Your task to perform on an android device: turn off location Image 0: 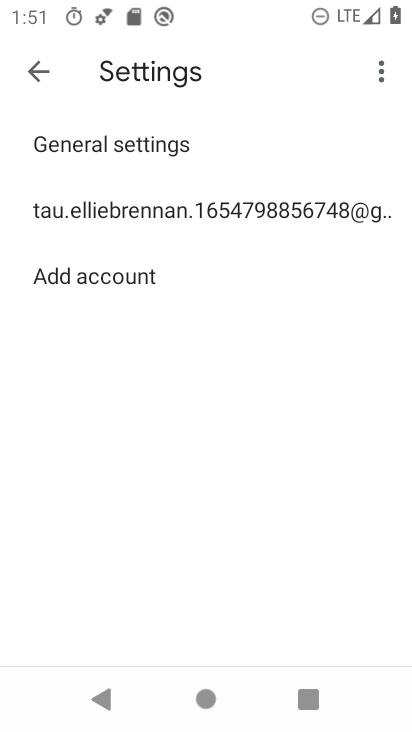
Step 0: press home button
Your task to perform on an android device: turn off location Image 1: 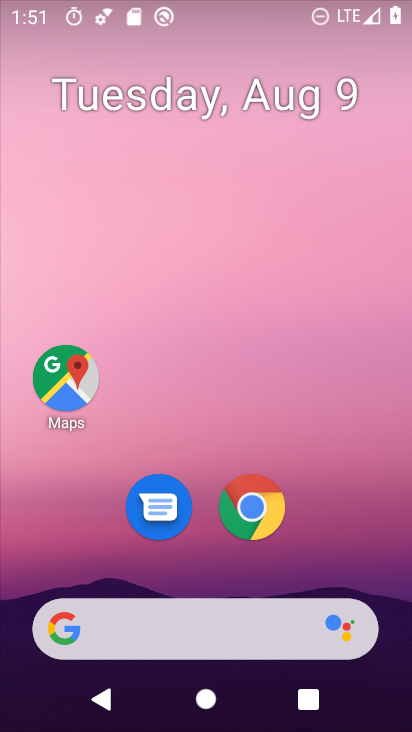
Step 1: drag from (270, 138) to (276, 36)
Your task to perform on an android device: turn off location Image 2: 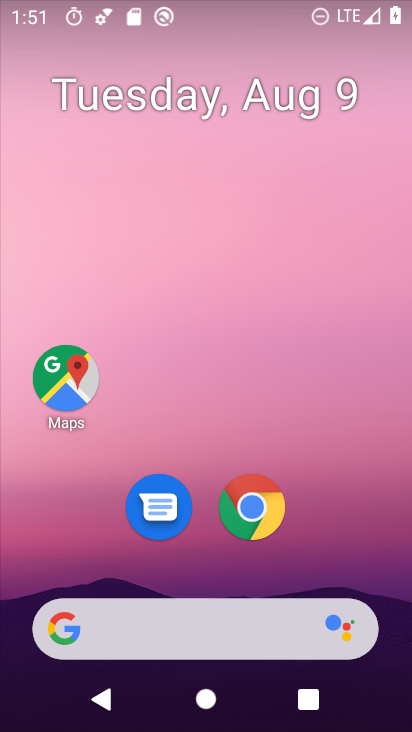
Step 2: drag from (274, 409) to (252, 224)
Your task to perform on an android device: turn off location Image 3: 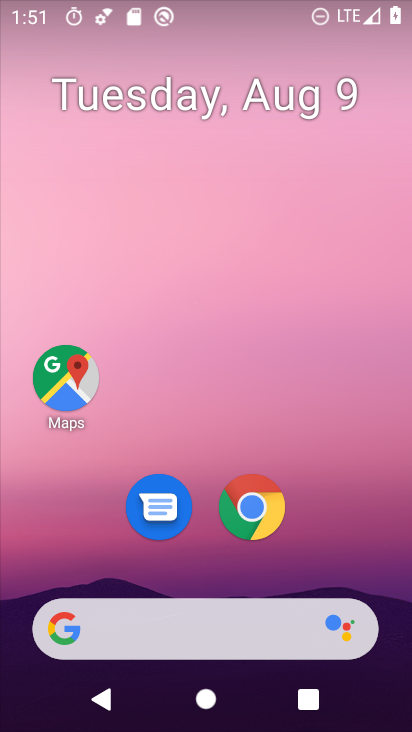
Step 3: drag from (188, 406) to (158, 107)
Your task to perform on an android device: turn off location Image 4: 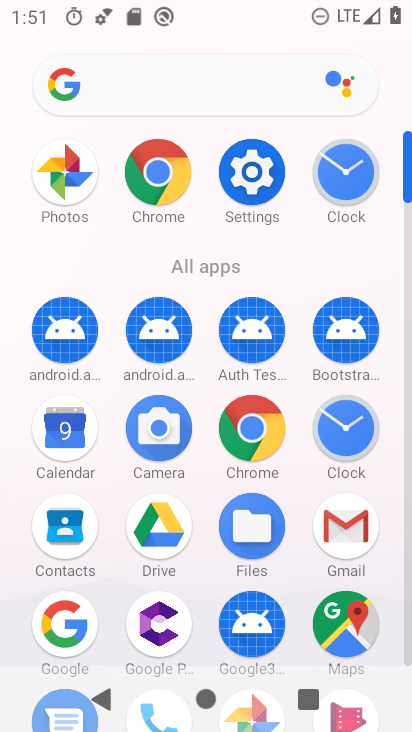
Step 4: click (249, 172)
Your task to perform on an android device: turn off location Image 5: 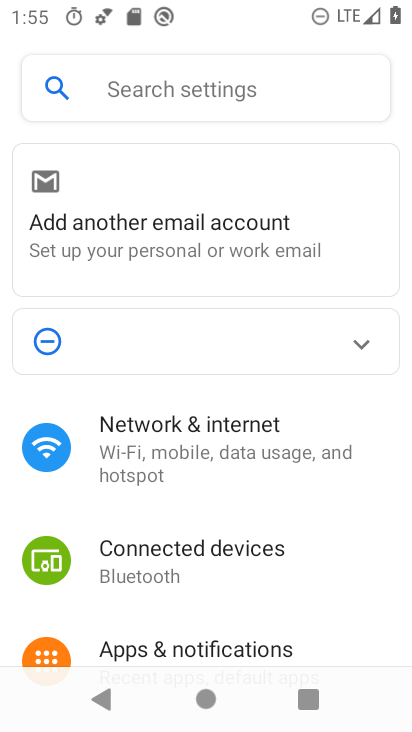
Step 5: click (207, 308)
Your task to perform on an android device: turn off location Image 6: 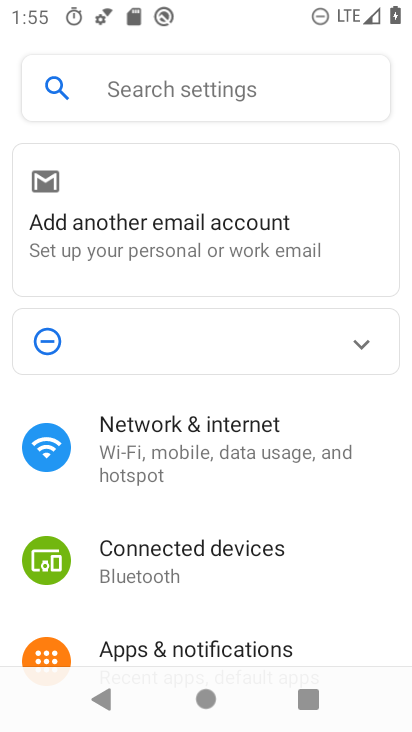
Step 6: task complete